Your task to perform on an android device: turn notification dots off Image 0: 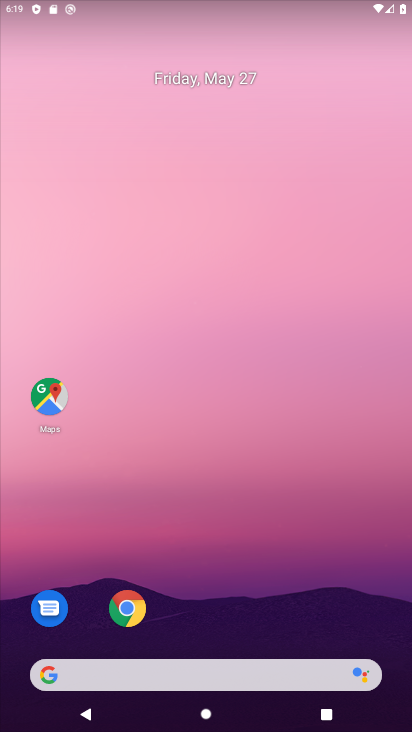
Step 0: press home button
Your task to perform on an android device: turn notification dots off Image 1: 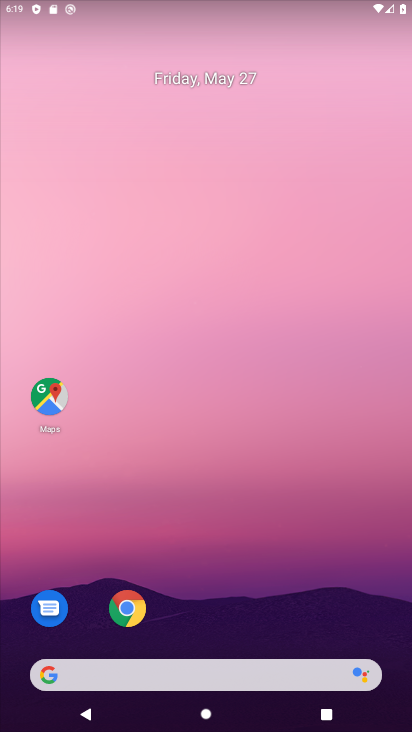
Step 1: drag from (210, 638) to (240, 176)
Your task to perform on an android device: turn notification dots off Image 2: 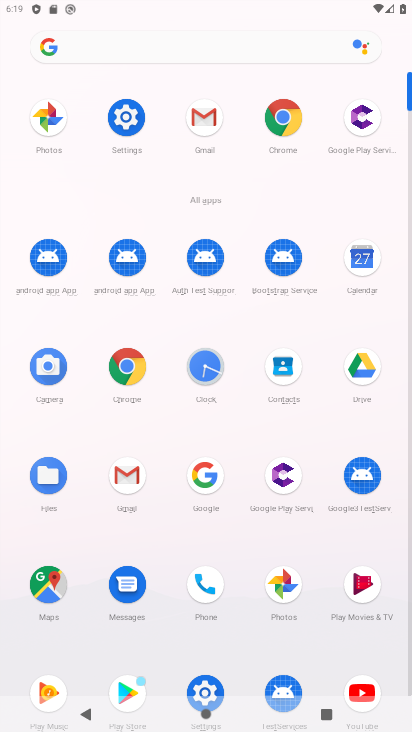
Step 2: click (204, 676)
Your task to perform on an android device: turn notification dots off Image 3: 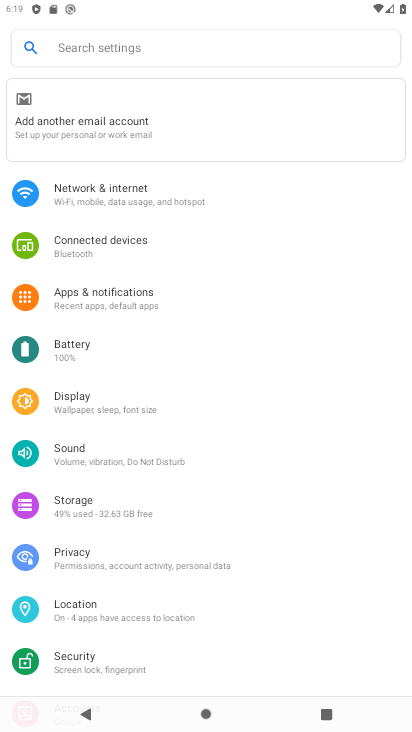
Step 3: click (149, 291)
Your task to perform on an android device: turn notification dots off Image 4: 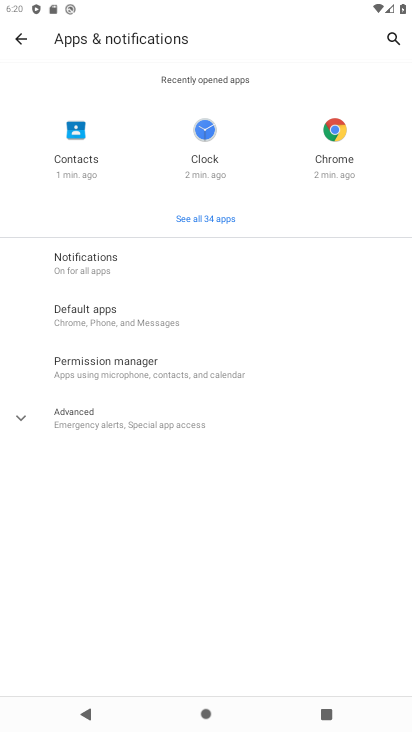
Step 4: click (122, 257)
Your task to perform on an android device: turn notification dots off Image 5: 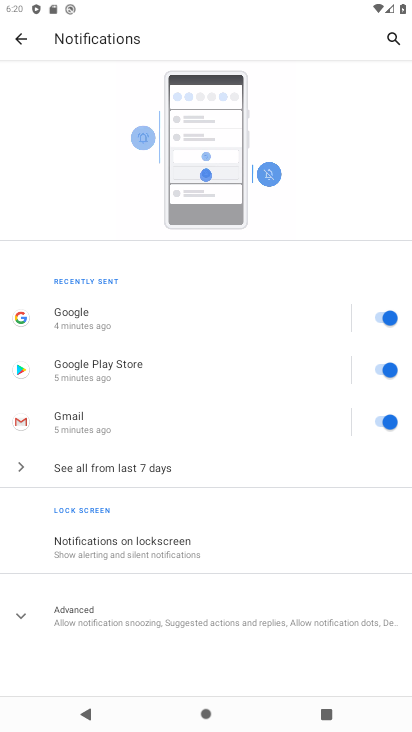
Step 5: click (123, 611)
Your task to perform on an android device: turn notification dots off Image 6: 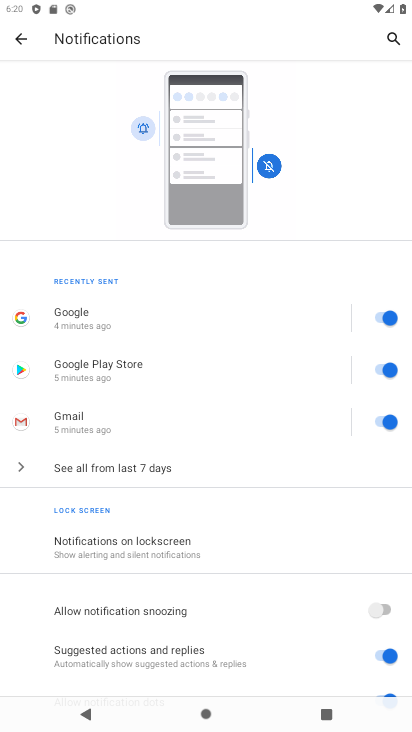
Step 6: drag from (256, 634) to (255, 225)
Your task to perform on an android device: turn notification dots off Image 7: 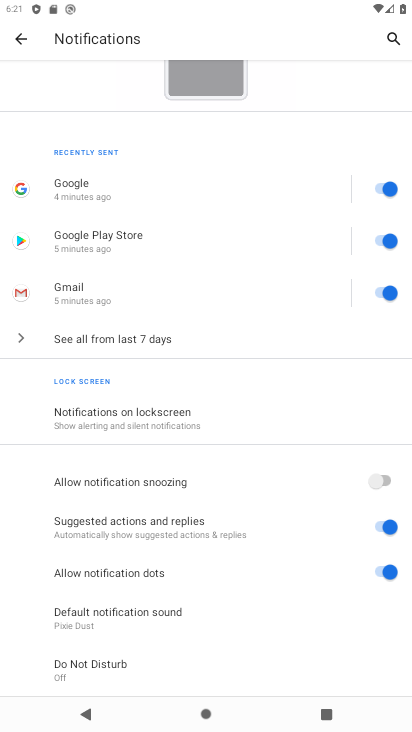
Step 7: drag from (147, 633) to (150, 253)
Your task to perform on an android device: turn notification dots off Image 8: 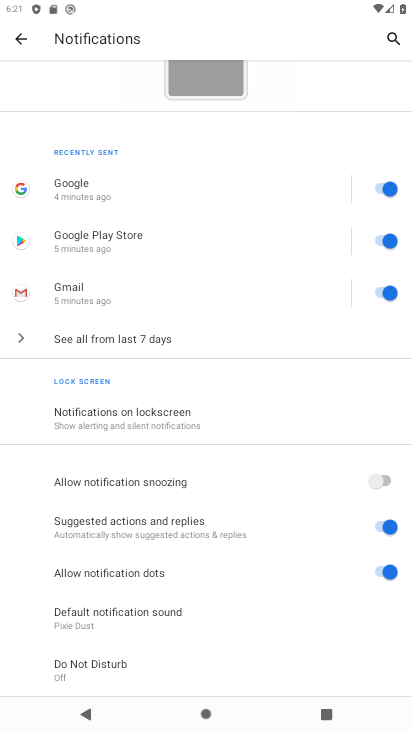
Step 8: click (384, 570)
Your task to perform on an android device: turn notification dots off Image 9: 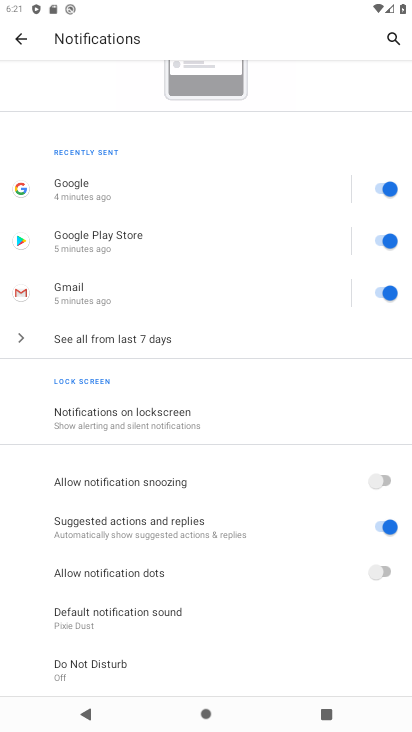
Step 9: task complete